Your task to perform on an android device: star an email in the gmail app Image 0: 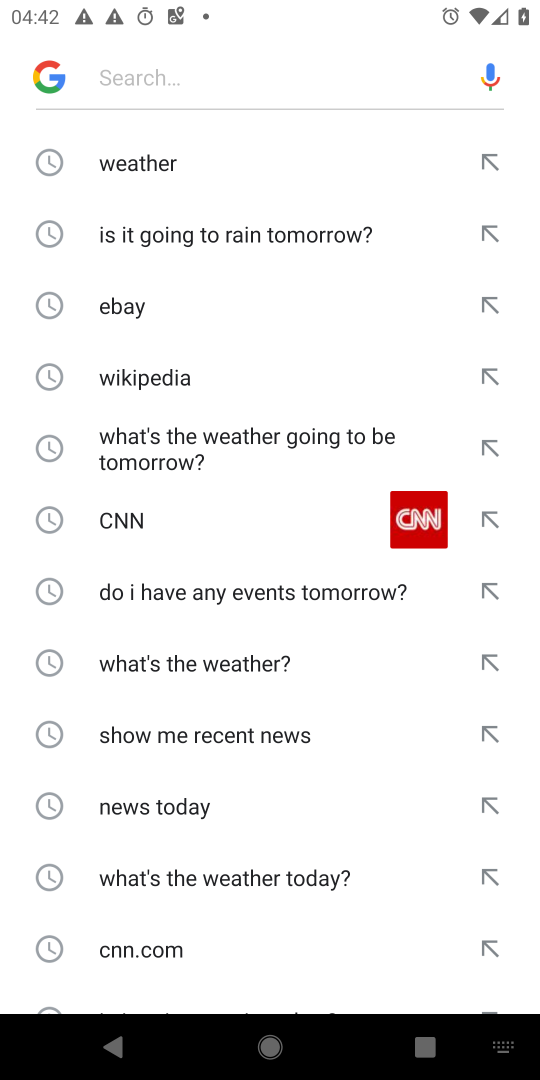
Step 0: press home button
Your task to perform on an android device: star an email in the gmail app Image 1: 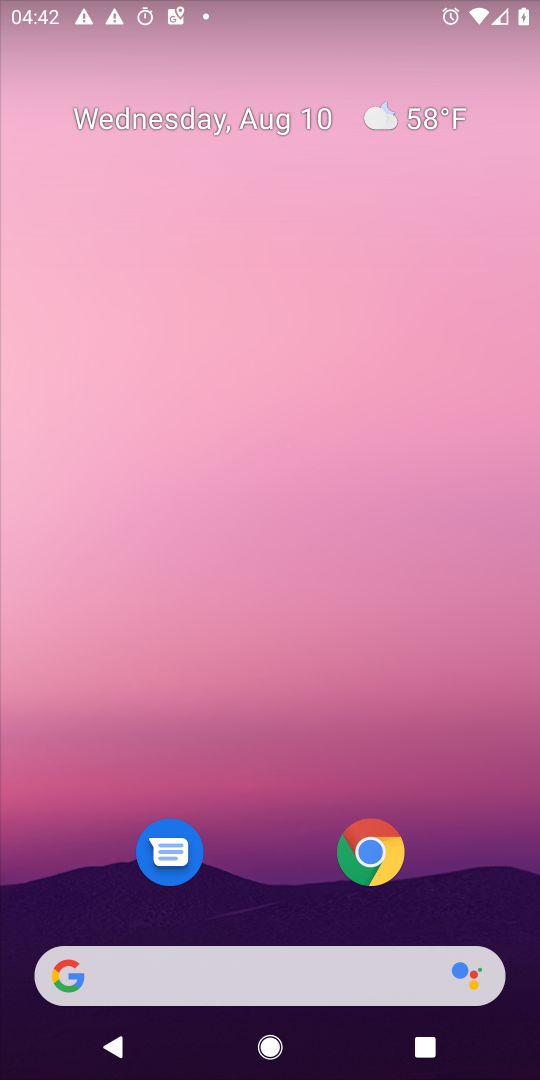
Step 1: drag from (272, 843) to (218, 184)
Your task to perform on an android device: star an email in the gmail app Image 2: 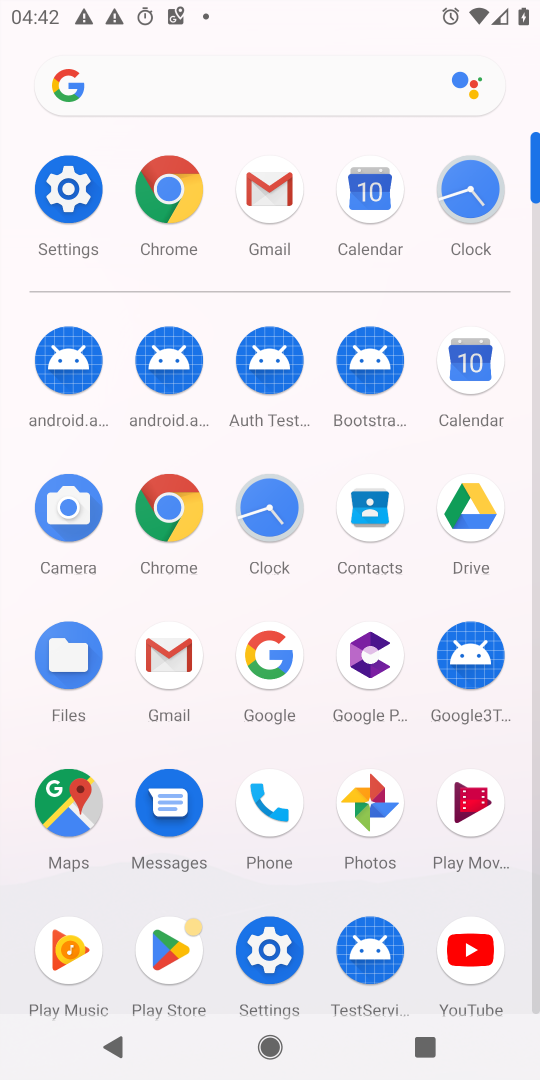
Step 2: click (182, 645)
Your task to perform on an android device: star an email in the gmail app Image 3: 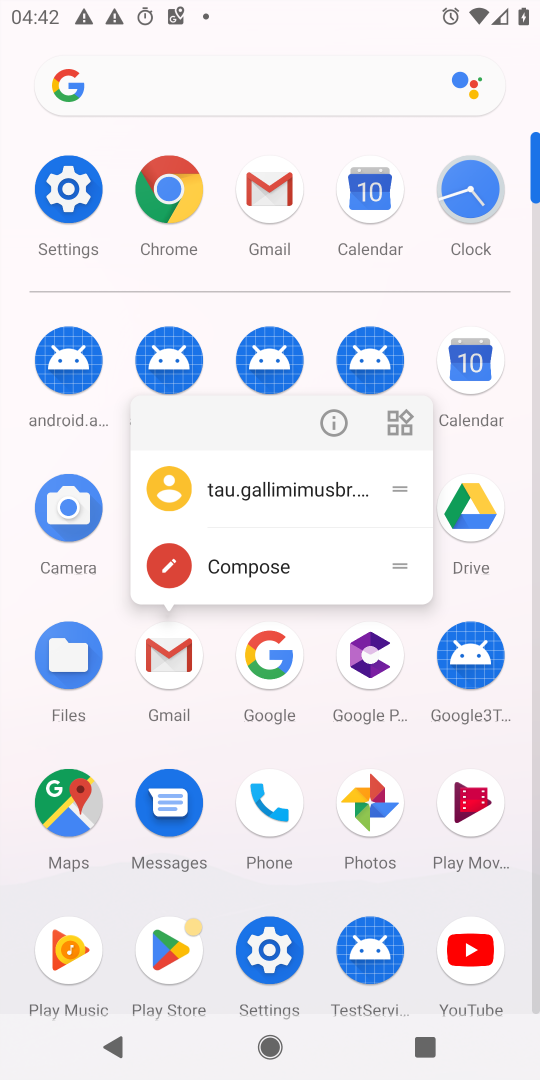
Step 3: click (182, 646)
Your task to perform on an android device: star an email in the gmail app Image 4: 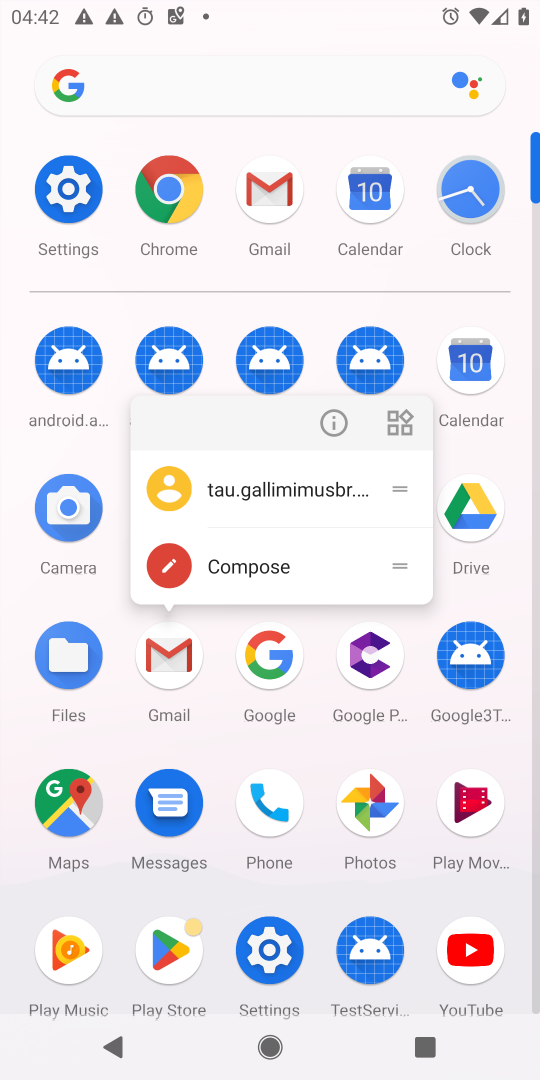
Step 4: click (165, 664)
Your task to perform on an android device: star an email in the gmail app Image 5: 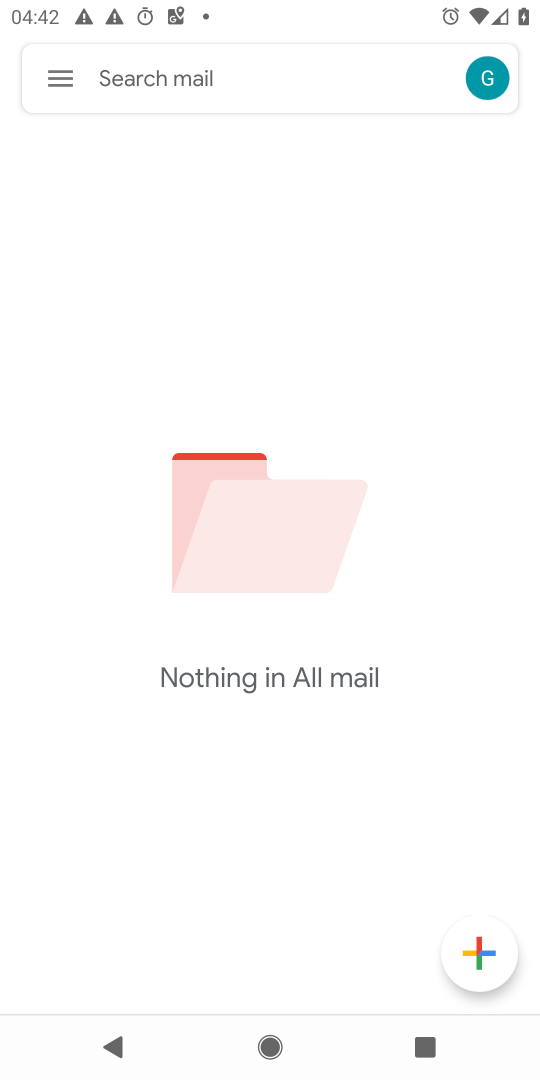
Step 5: click (60, 87)
Your task to perform on an android device: star an email in the gmail app Image 6: 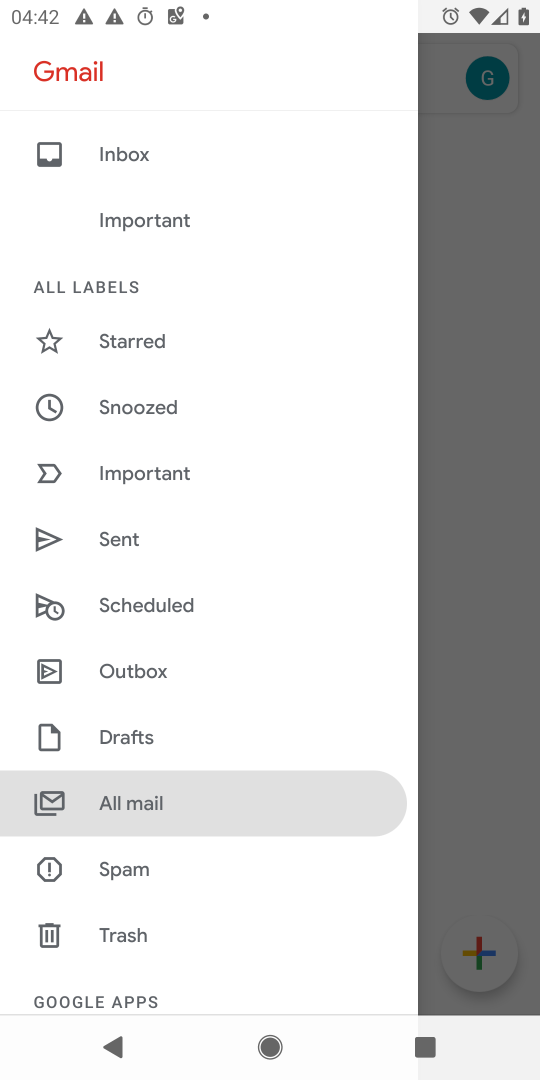
Step 6: click (485, 476)
Your task to perform on an android device: star an email in the gmail app Image 7: 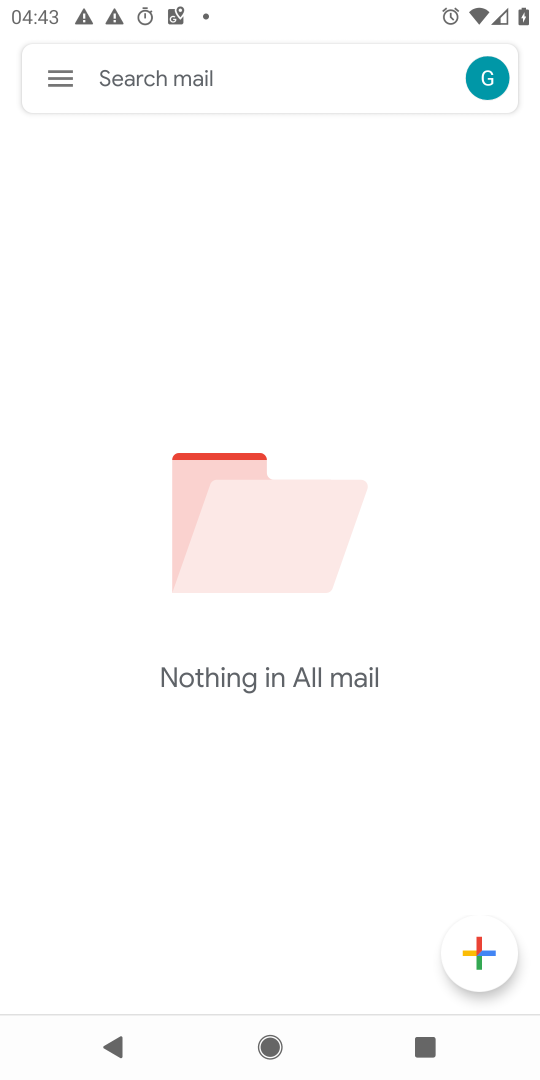
Step 7: task complete